Your task to perform on an android device: Open the map Image 0: 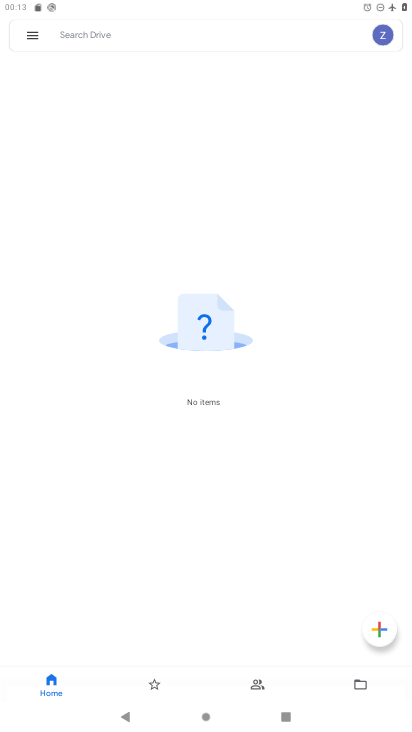
Step 0: press home button
Your task to perform on an android device: Open the map Image 1: 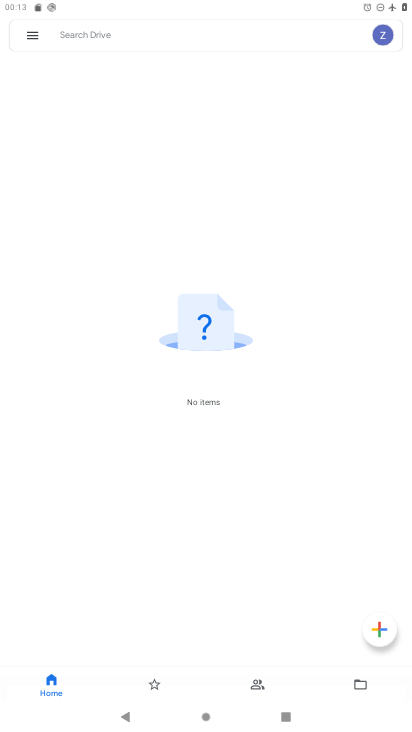
Step 1: press home button
Your task to perform on an android device: Open the map Image 2: 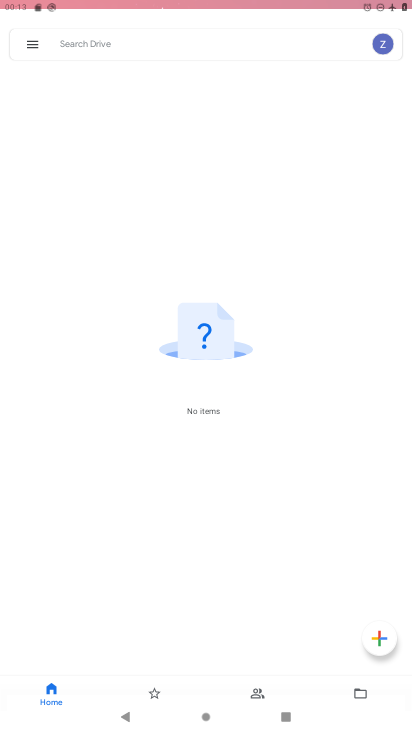
Step 2: drag from (248, 392) to (250, 236)
Your task to perform on an android device: Open the map Image 3: 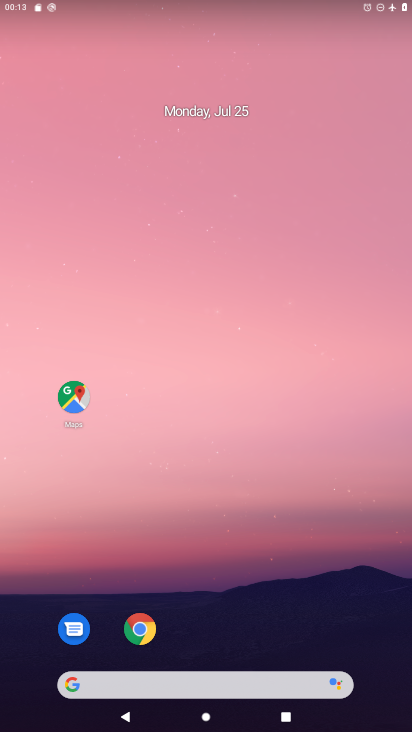
Step 3: drag from (213, 658) to (257, 198)
Your task to perform on an android device: Open the map Image 4: 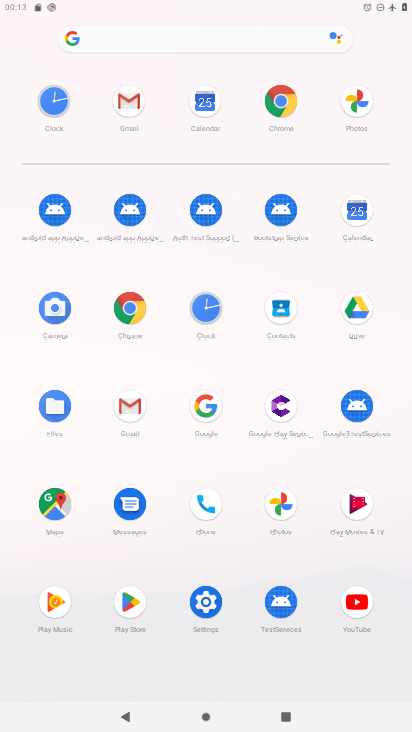
Step 4: click (51, 498)
Your task to perform on an android device: Open the map Image 5: 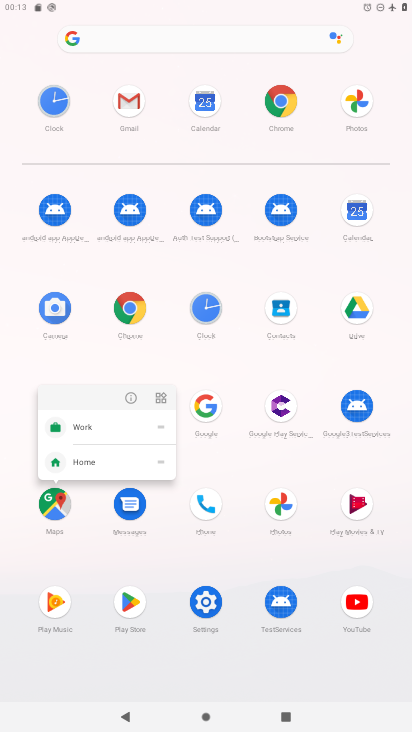
Step 5: click (132, 396)
Your task to perform on an android device: Open the map Image 6: 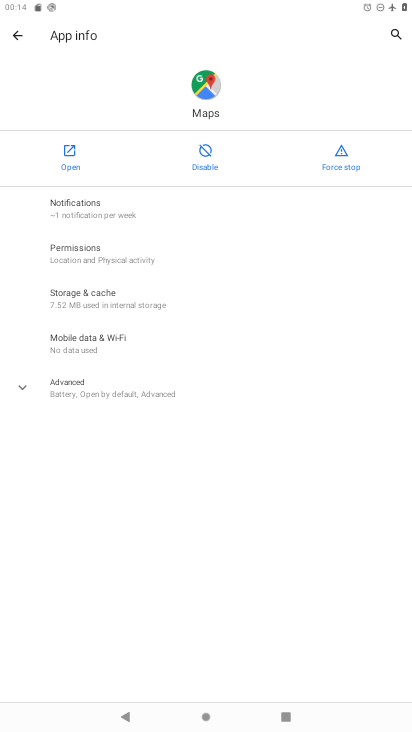
Step 6: click (72, 161)
Your task to perform on an android device: Open the map Image 7: 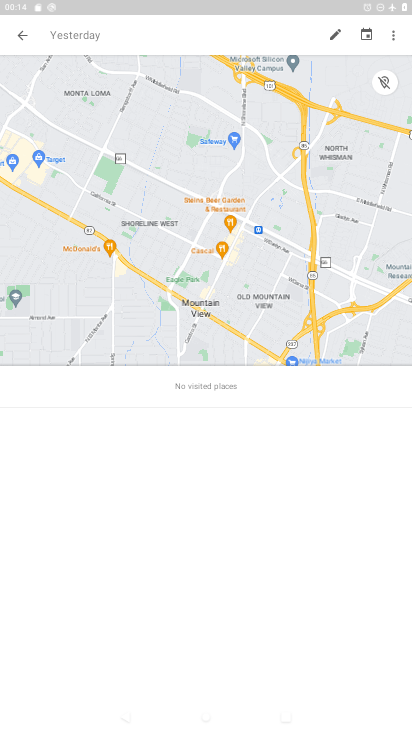
Step 7: task complete